Your task to perform on an android device: Check the weather Image 0: 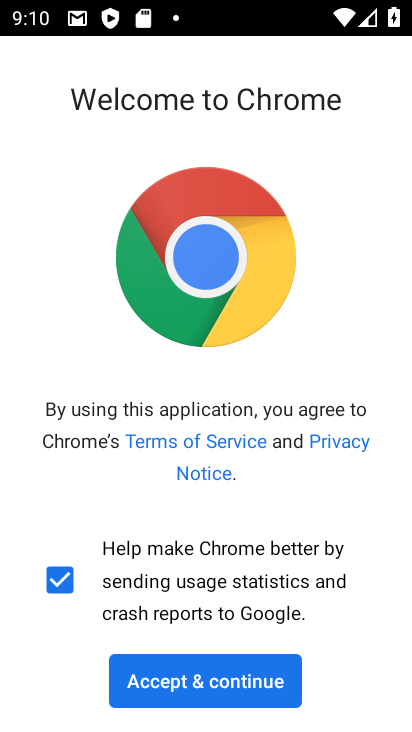
Step 0: press home button
Your task to perform on an android device: Check the weather Image 1: 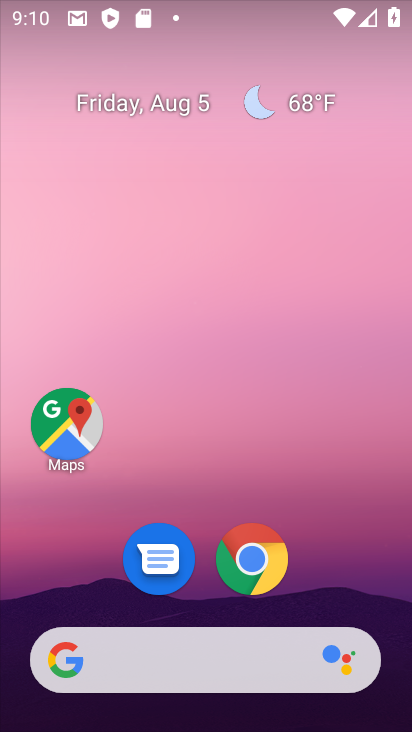
Step 1: drag from (223, 606) to (331, 139)
Your task to perform on an android device: Check the weather Image 2: 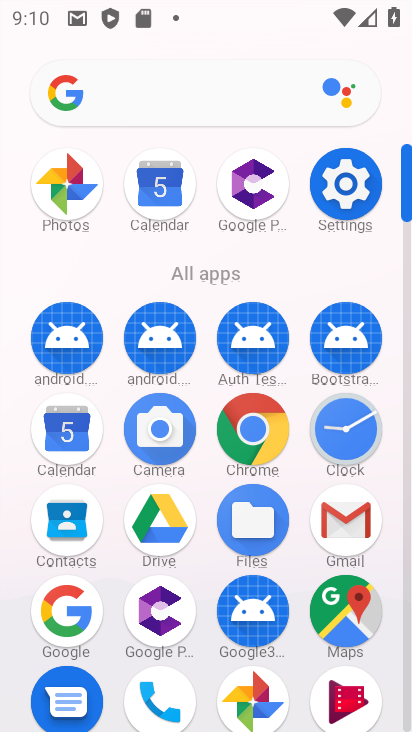
Step 2: click (71, 621)
Your task to perform on an android device: Check the weather Image 3: 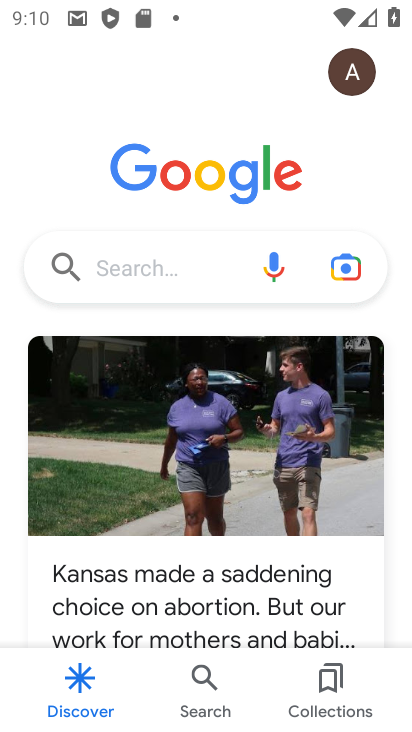
Step 3: click (137, 281)
Your task to perform on an android device: Check the weather Image 4: 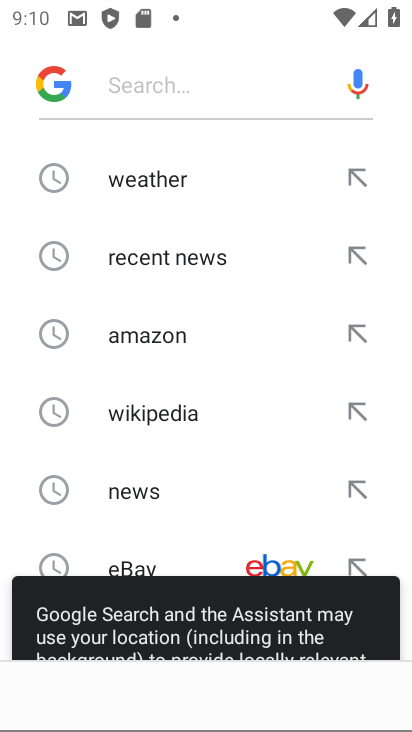
Step 4: click (191, 180)
Your task to perform on an android device: Check the weather Image 5: 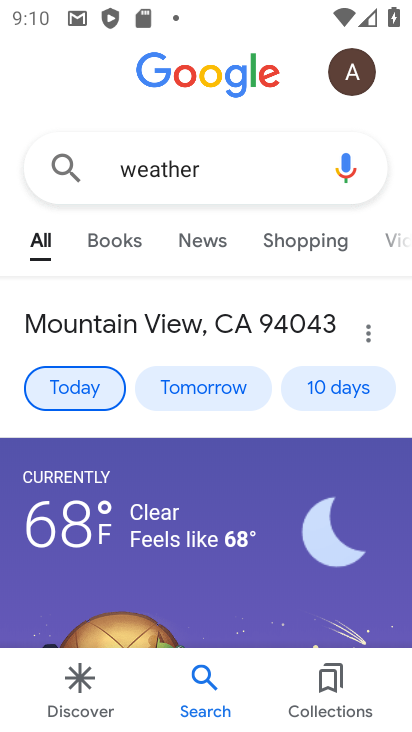
Step 5: task complete